Your task to perform on an android device: Show me productivity apps on the Play Store Image 0: 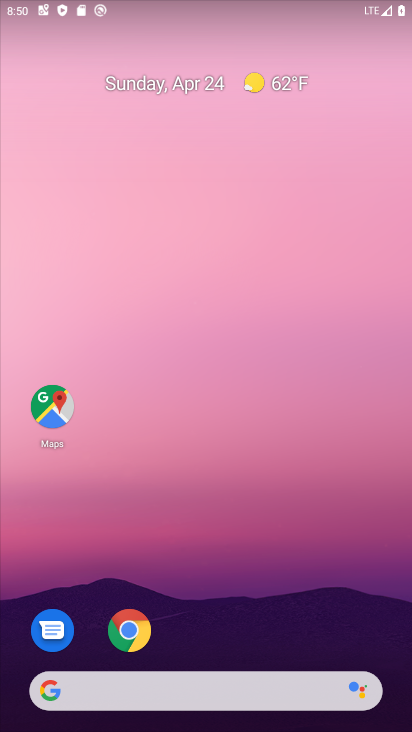
Step 0: drag from (247, 517) to (205, 9)
Your task to perform on an android device: Show me productivity apps on the Play Store Image 1: 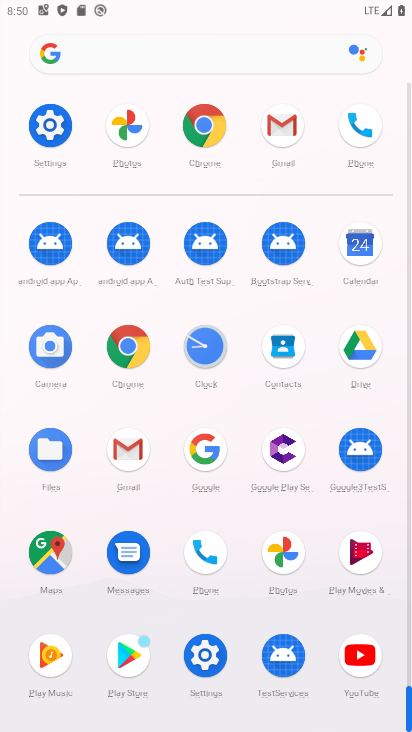
Step 1: drag from (8, 532) to (10, 285)
Your task to perform on an android device: Show me productivity apps on the Play Store Image 2: 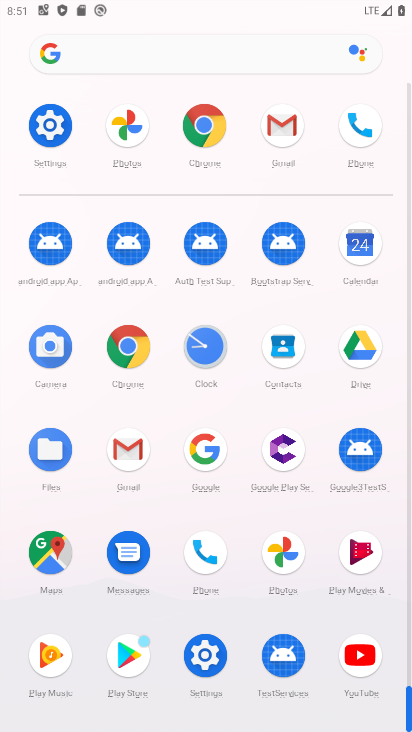
Step 2: click (121, 652)
Your task to perform on an android device: Show me productivity apps on the Play Store Image 3: 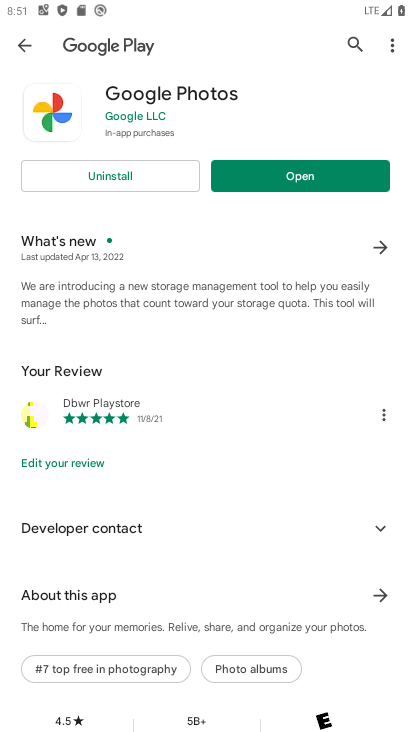
Step 3: click (20, 44)
Your task to perform on an android device: Show me productivity apps on the Play Store Image 4: 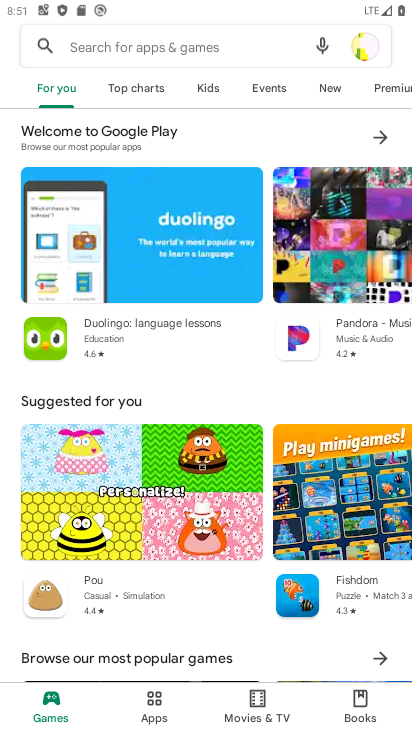
Step 4: drag from (362, 85) to (88, 93)
Your task to perform on an android device: Show me productivity apps on the Play Store Image 5: 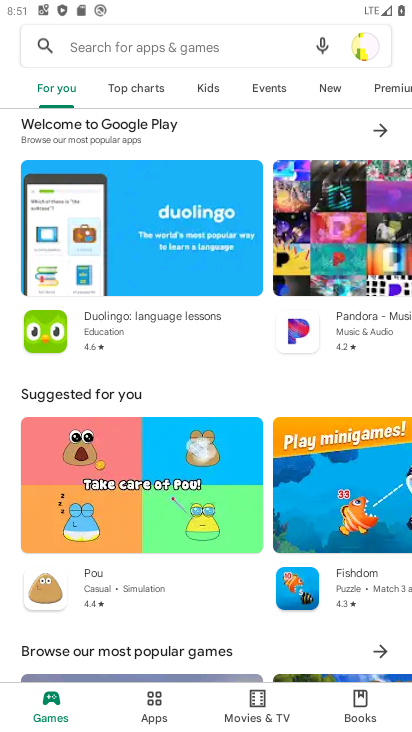
Step 5: drag from (353, 81) to (133, 83)
Your task to perform on an android device: Show me productivity apps on the Play Store Image 6: 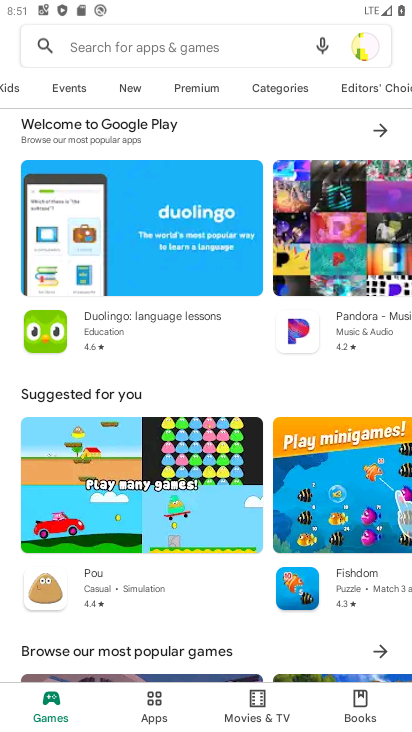
Step 6: click (278, 85)
Your task to perform on an android device: Show me productivity apps on the Play Store Image 7: 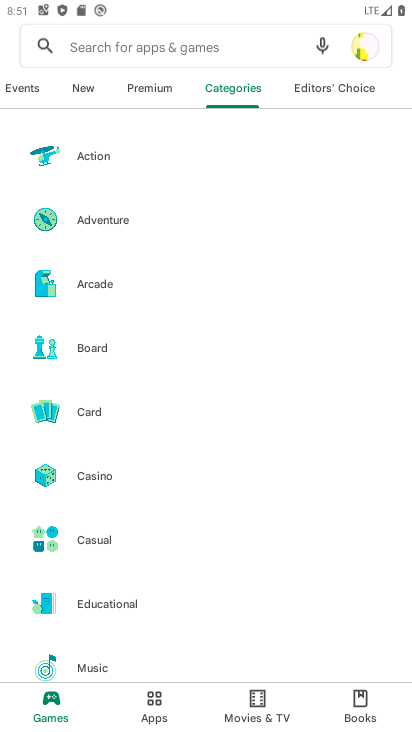
Step 7: drag from (250, 560) to (257, 119)
Your task to perform on an android device: Show me productivity apps on the Play Store Image 8: 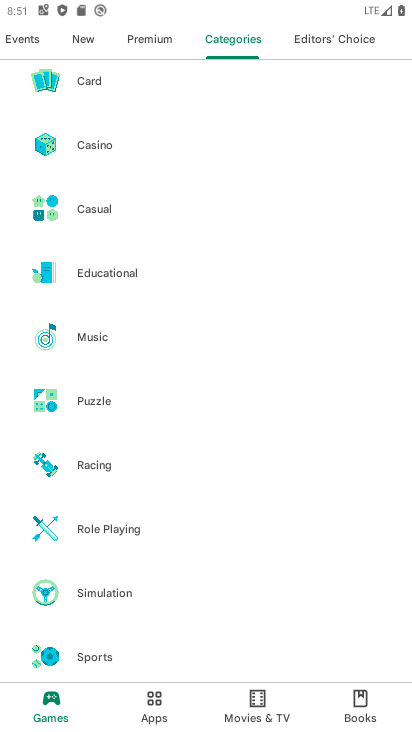
Step 8: drag from (258, 560) to (262, 90)
Your task to perform on an android device: Show me productivity apps on the Play Store Image 9: 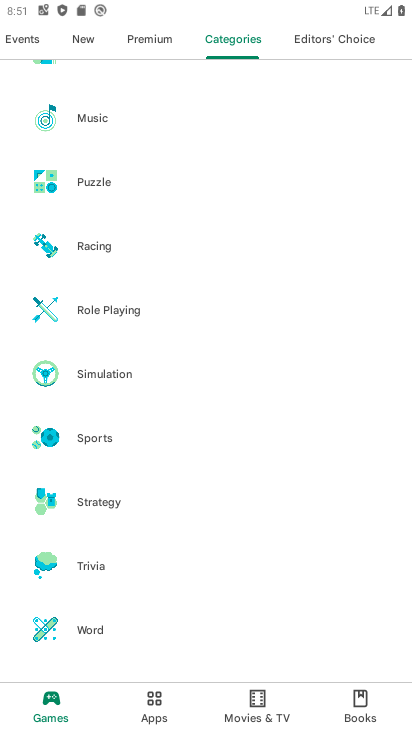
Step 9: drag from (258, 572) to (258, 147)
Your task to perform on an android device: Show me productivity apps on the Play Store Image 10: 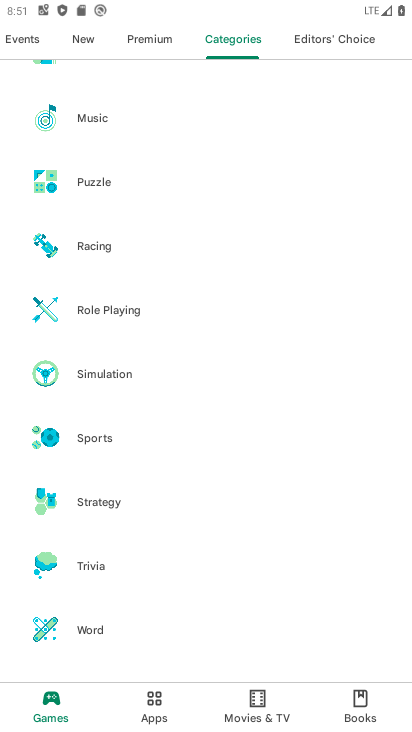
Step 10: click (150, 706)
Your task to perform on an android device: Show me productivity apps on the Play Store Image 11: 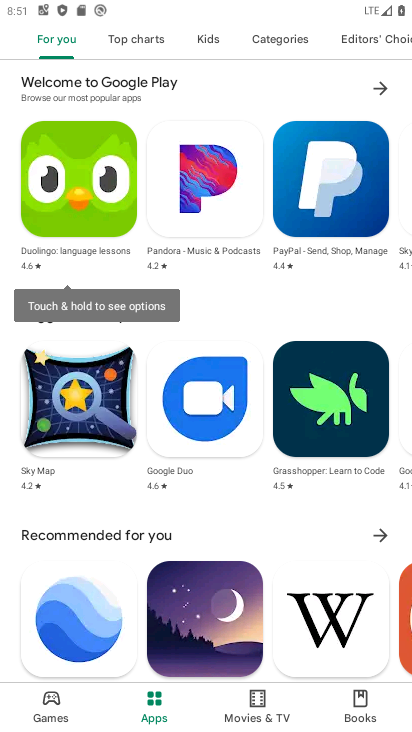
Step 11: click (295, 49)
Your task to perform on an android device: Show me productivity apps on the Play Store Image 12: 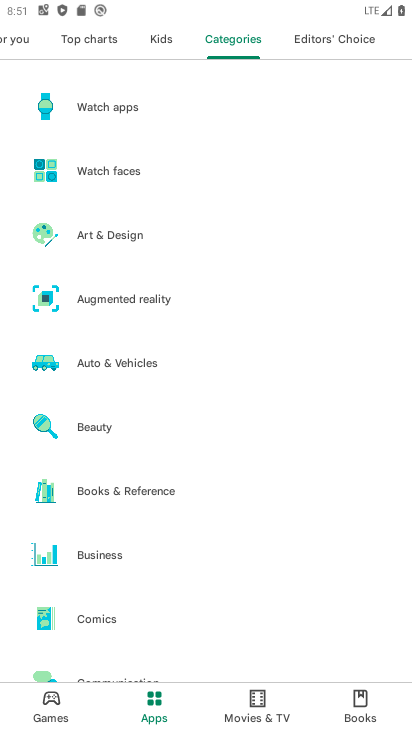
Step 12: drag from (199, 382) to (201, 173)
Your task to perform on an android device: Show me productivity apps on the Play Store Image 13: 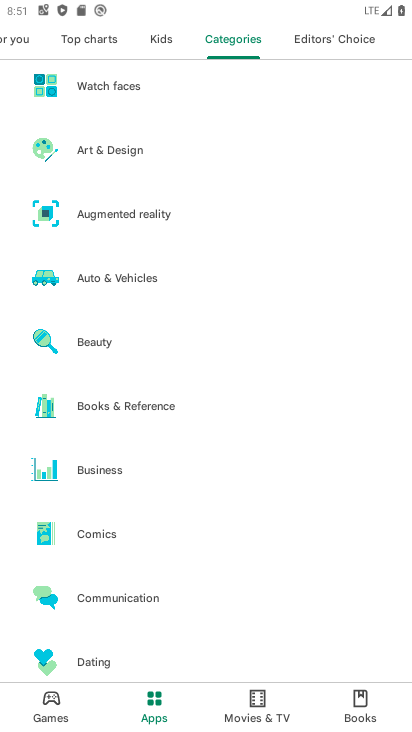
Step 13: drag from (237, 393) to (234, 138)
Your task to perform on an android device: Show me productivity apps on the Play Store Image 14: 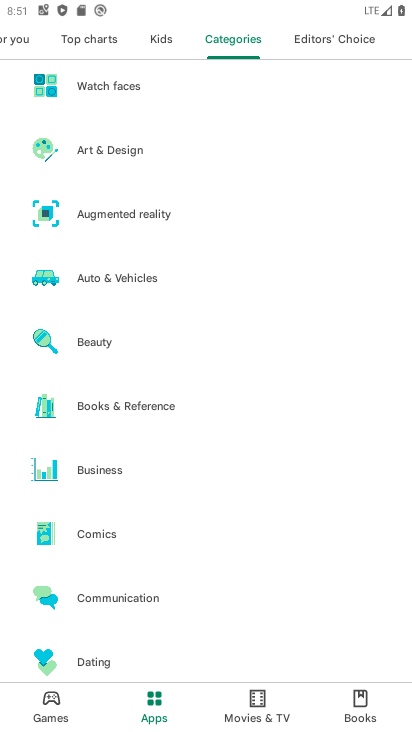
Step 14: drag from (233, 401) to (235, 133)
Your task to perform on an android device: Show me productivity apps on the Play Store Image 15: 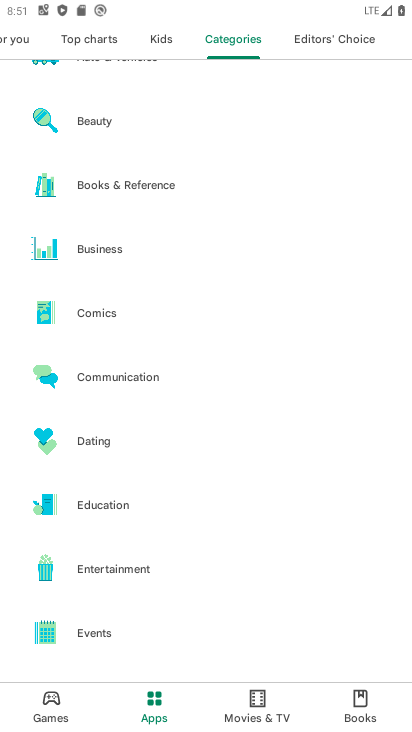
Step 15: drag from (244, 569) to (249, 156)
Your task to perform on an android device: Show me productivity apps on the Play Store Image 16: 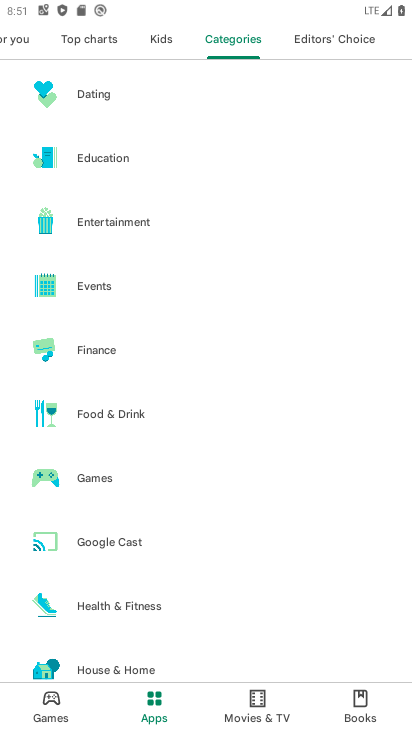
Step 16: drag from (236, 544) to (264, 124)
Your task to perform on an android device: Show me productivity apps on the Play Store Image 17: 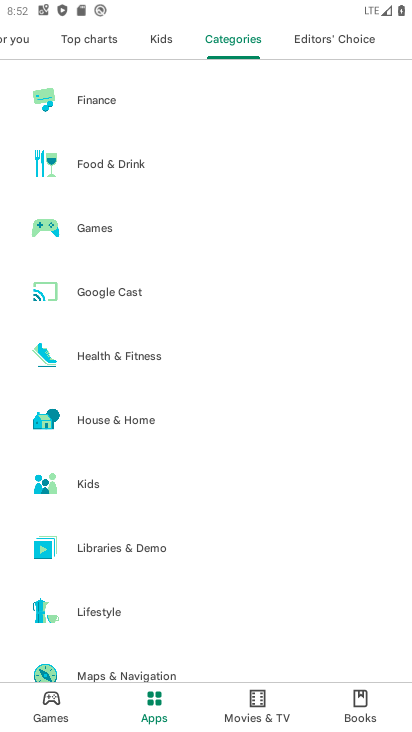
Step 17: drag from (236, 561) to (261, 176)
Your task to perform on an android device: Show me productivity apps on the Play Store Image 18: 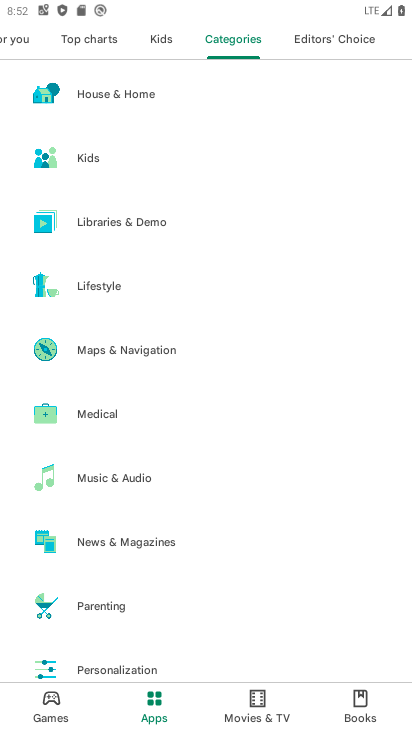
Step 18: drag from (229, 530) to (233, 173)
Your task to perform on an android device: Show me productivity apps on the Play Store Image 19: 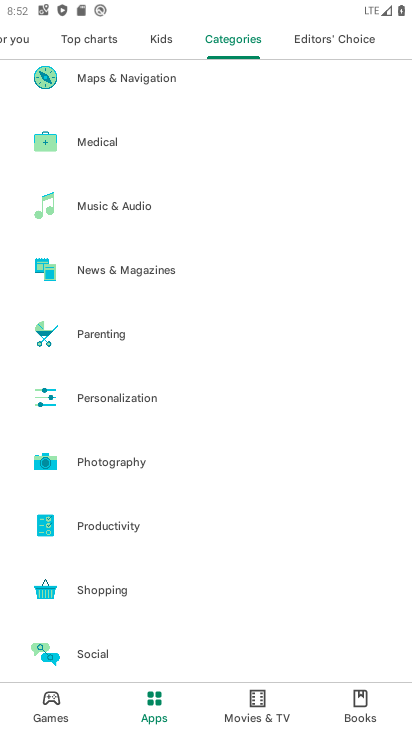
Step 19: click (122, 531)
Your task to perform on an android device: Show me productivity apps on the Play Store Image 20: 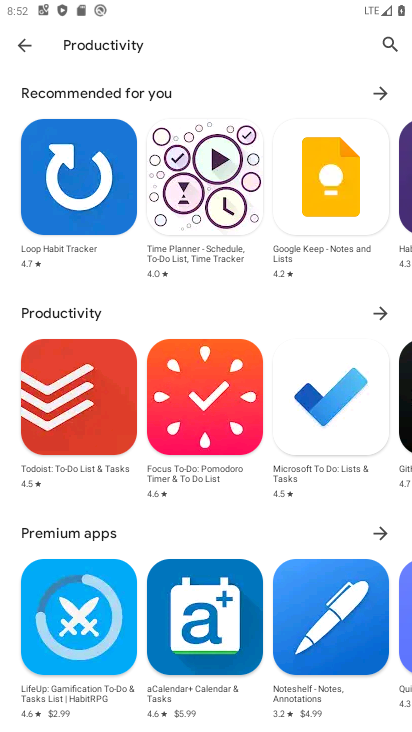
Step 20: task complete